Your task to perform on an android device: When is my next meeting? Image 0: 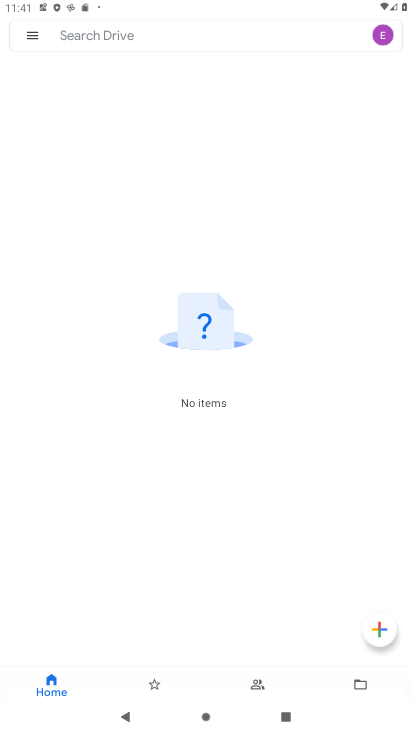
Step 0: task complete